Your task to perform on an android device: Add "razer thresher" to the cart on ebay.com, then select checkout. Image 0: 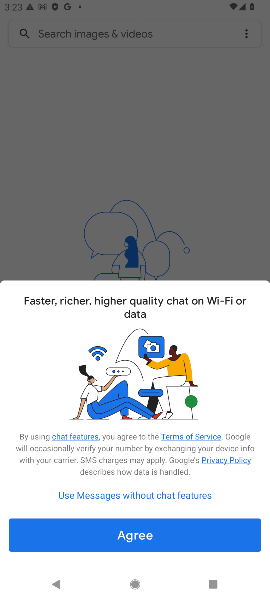
Step 0: click (126, 530)
Your task to perform on an android device: Add "razer thresher" to the cart on ebay.com, then select checkout. Image 1: 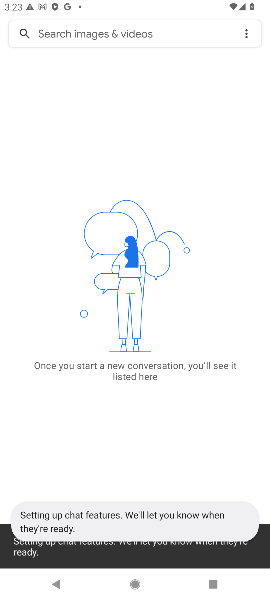
Step 1: press home button
Your task to perform on an android device: Add "razer thresher" to the cart on ebay.com, then select checkout. Image 2: 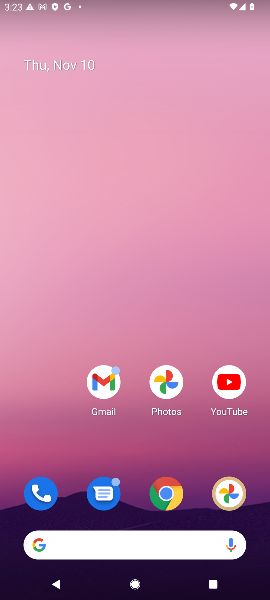
Step 2: drag from (129, 496) to (149, 133)
Your task to perform on an android device: Add "razer thresher" to the cart on ebay.com, then select checkout. Image 3: 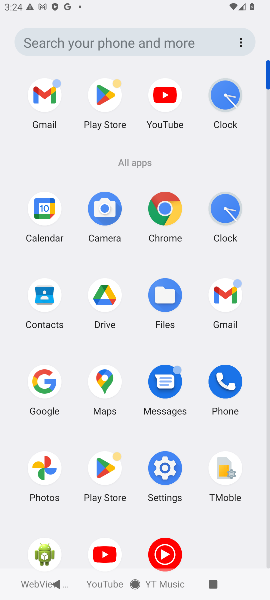
Step 3: click (42, 371)
Your task to perform on an android device: Add "razer thresher" to the cart on ebay.com, then select checkout. Image 4: 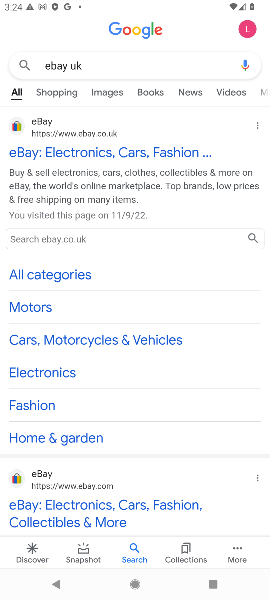
Step 4: click (120, 57)
Your task to perform on an android device: Add "razer thresher" to the cart on ebay.com, then select checkout. Image 5: 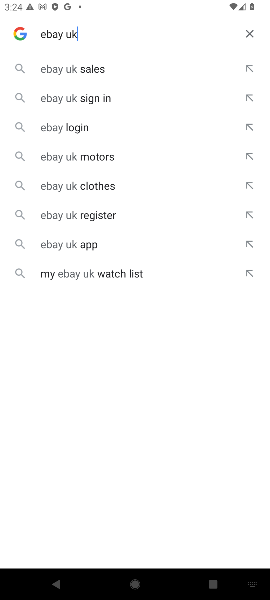
Step 5: press home button
Your task to perform on an android device: Add "razer thresher" to the cart on ebay.com, then select checkout. Image 6: 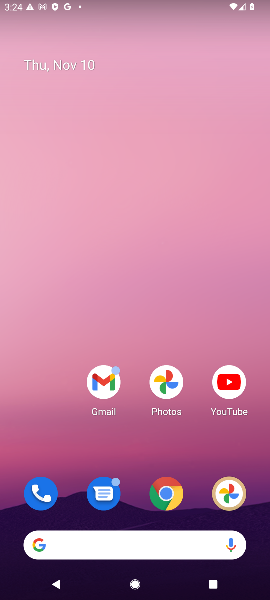
Step 6: drag from (103, 484) to (185, 37)
Your task to perform on an android device: Add "razer thresher" to the cart on ebay.com, then select checkout. Image 7: 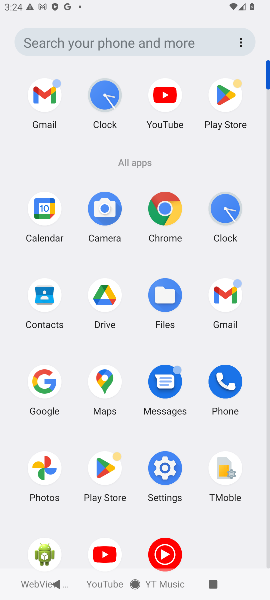
Step 7: click (49, 381)
Your task to perform on an android device: Add "razer thresher" to the cart on ebay.com, then select checkout. Image 8: 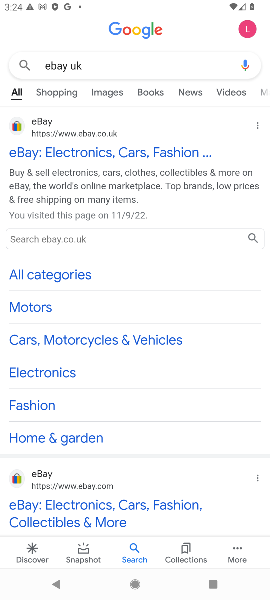
Step 8: click (15, 125)
Your task to perform on an android device: Add "razer thresher" to the cart on ebay.com, then select checkout. Image 9: 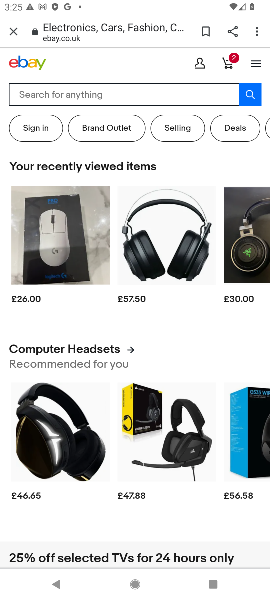
Step 9: click (149, 92)
Your task to perform on an android device: Add "razer thresher" to the cart on ebay.com, then select checkout. Image 10: 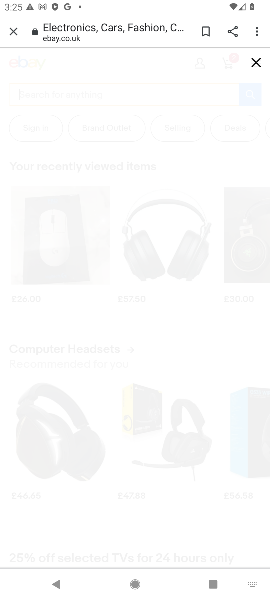
Step 10: click (152, 89)
Your task to perform on an android device: Add "razer thresher" to the cart on ebay.com, then select checkout. Image 11: 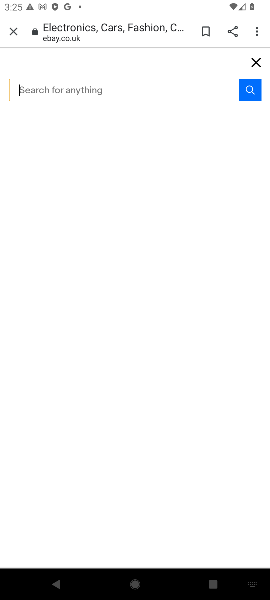
Step 11: click (152, 89)
Your task to perform on an android device: Add "razer thresher" to the cart on ebay.com, then select checkout. Image 12: 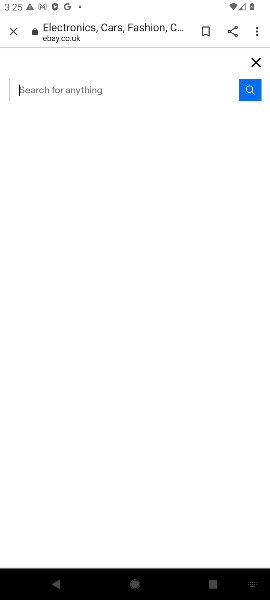
Step 12: type "razer thresher "
Your task to perform on an android device: Add "razer thresher" to the cart on ebay.com, then select checkout. Image 13: 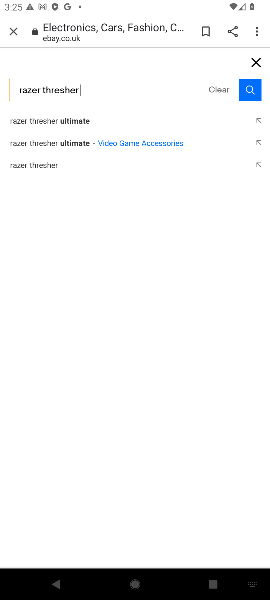
Step 13: click (245, 88)
Your task to perform on an android device: Add "razer thresher" to the cart on ebay.com, then select checkout. Image 14: 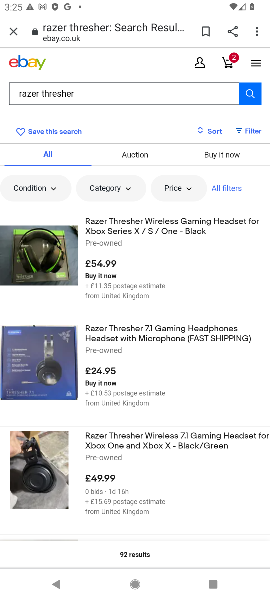
Step 14: click (121, 244)
Your task to perform on an android device: Add "razer thresher" to the cart on ebay.com, then select checkout. Image 15: 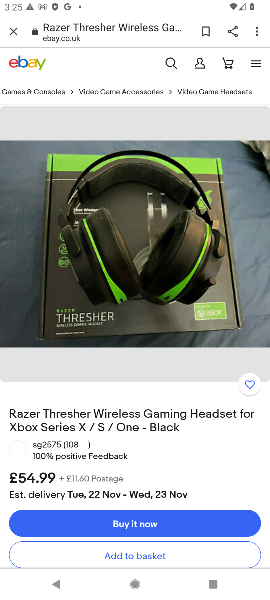
Step 15: drag from (122, 484) to (146, 149)
Your task to perform on an android device: Add "razer thresher" to the cart on ebay.com, then select checkout. Image 16: 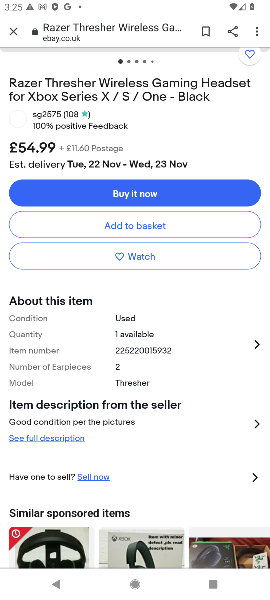
Step 16: click (166, 219)
Your task to perform on an android device: Add "razer thresher" to the cart on ebay.com, then select checkout. Image 17: 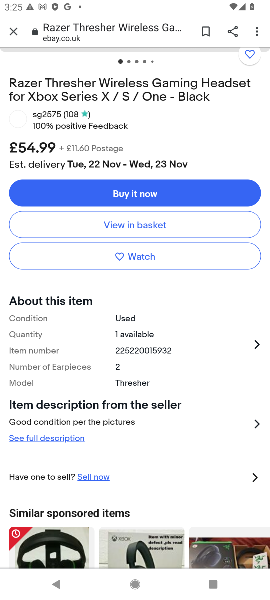
Step 17: task complete